Your task to perform on an android device: What's the weather going to be tomorrow? Image 0: 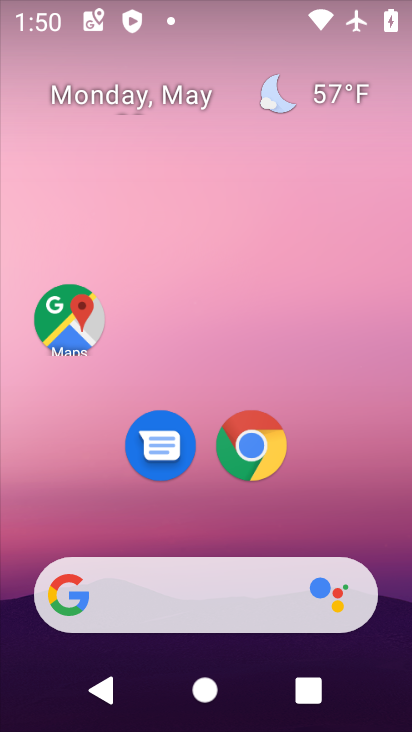
Step 0: drag from (235, 519) to (284, 46)
Your task to perform on an android device: What's the weather going to be tomorrow? Image 1: 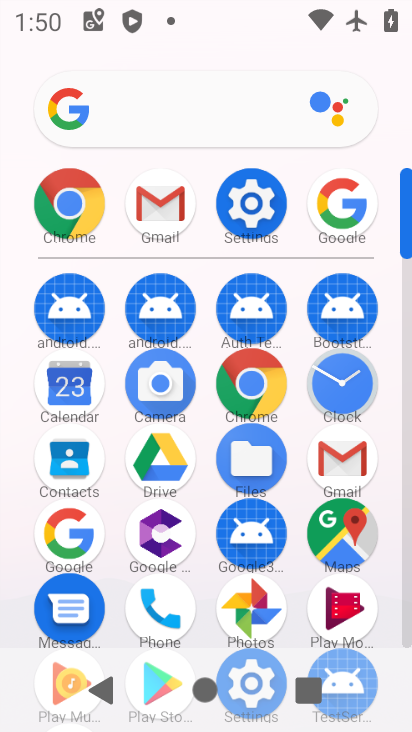
Step 1: click (343, 212)
Your task to perform on an android device: What's the weather going to be tomorrow? Image 2: 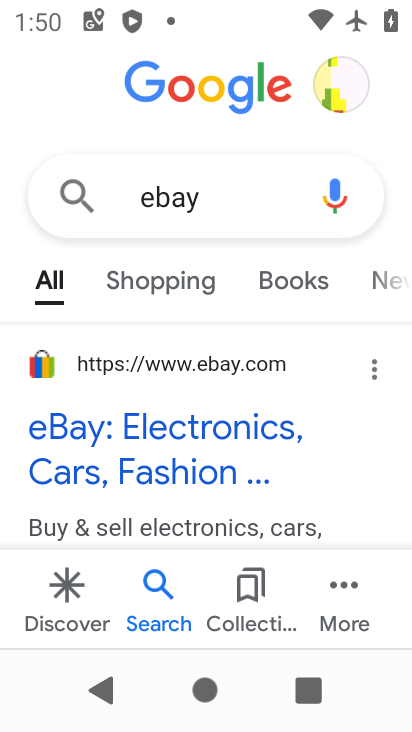
Step 2: click (216, 207)
Your task to perform on an android device: What's the weather going to be tomorrow? Image 3: 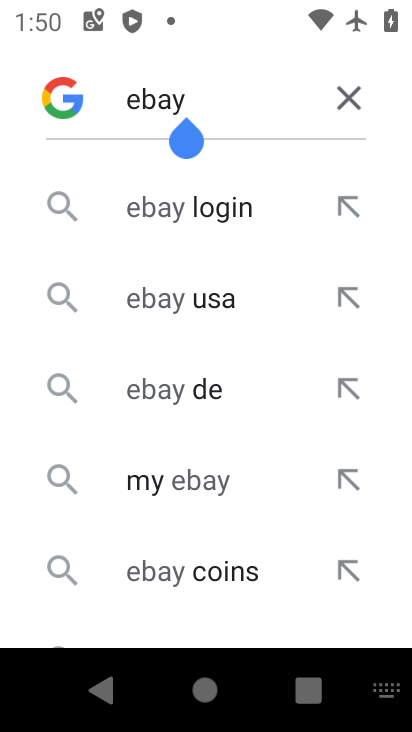
Step 3: click (326, 103)
Your task to perform on an android device: What's the weather going to be tomorrow? Image 4: 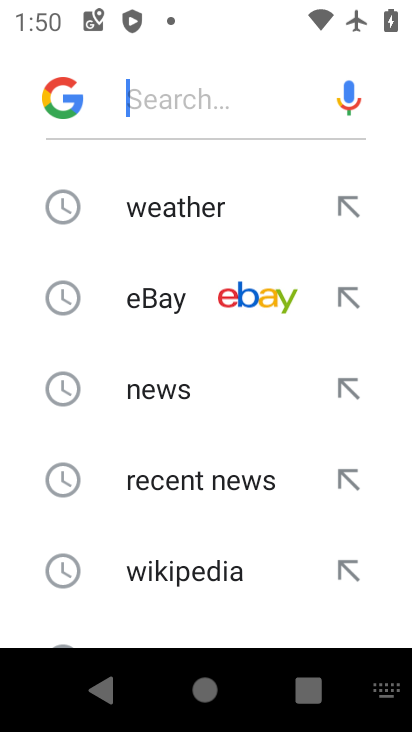
Step 4: click (214, 204)
Your task to perform on an android device: What's the weather going to be tomorrow? Image 5: 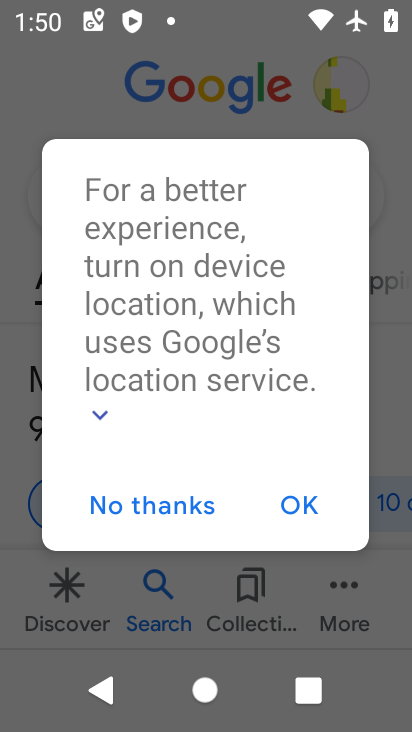
Step 5: click (165, 512)
Your task to perform on an android device: What's the weather going to be tomorrow? Image 6: 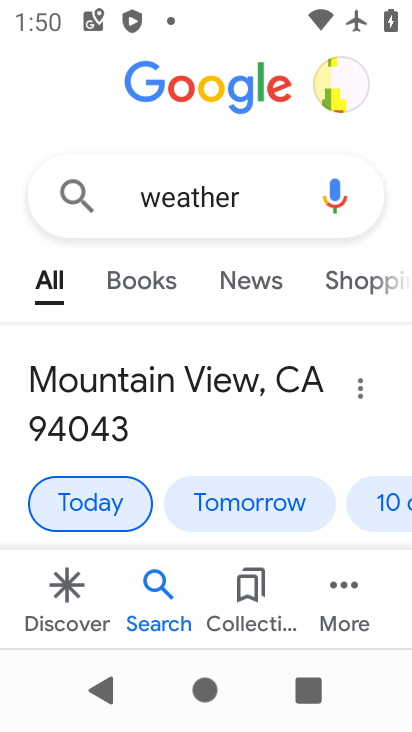
Step 6: click (227, 488)
Your task to perform on an android device: What's the weather going to be tomorrow? Image 7: 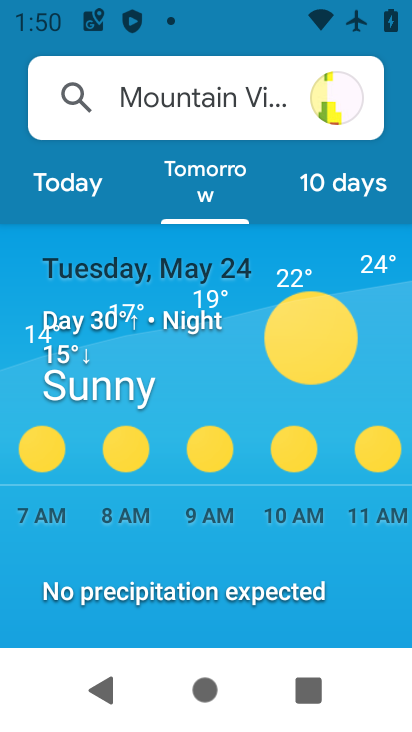
Step 7: task complete